Your task to perform on an android device: Open calendar and show me the first week of next month Image 0: 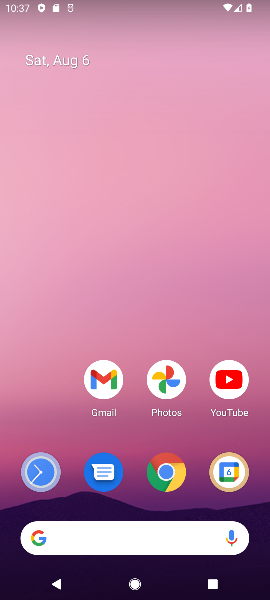
Step 0: drag from (165, 304) to (139, 133)
Your task to perform on an android device: Open calendar and show me the first week of next month Image 1: 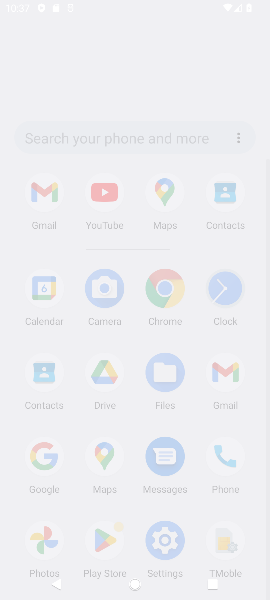
Step 1: drag from (149, 466) to (129, 220)
Your task to perform on an android device: Open calendar and show me the first week of next month Image 2: 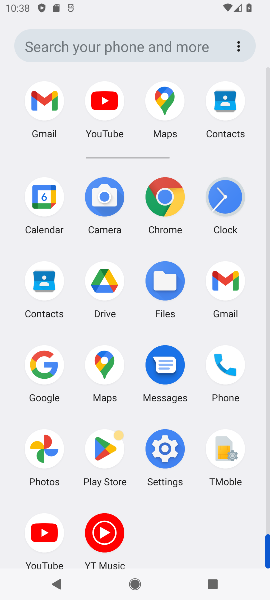
Step 2: click (43, 195)
Your task to perform on an android device: Open calendar and show me the first week of next month Image 3: 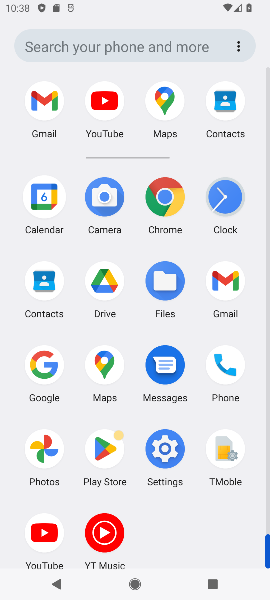
Step 3: click (43, 195)
Your task to perform on an android device: Open calendar and show me the first week of next month Image 4: 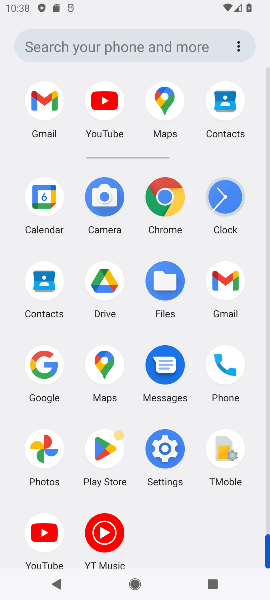
Step 4: click (42, 194)
Your task to perform on an android device: Open calendar and show me the first week of next month Image 5: 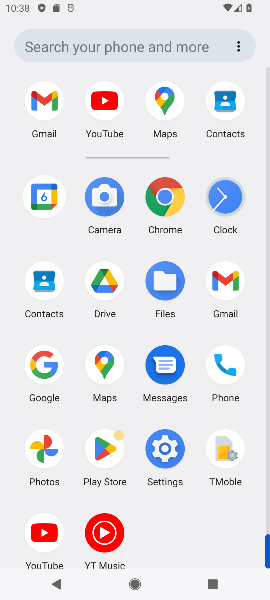
Step 5: click (42, 194)
Your task to perform on an android device: Open calendar and show me the first week of next month Image 6: 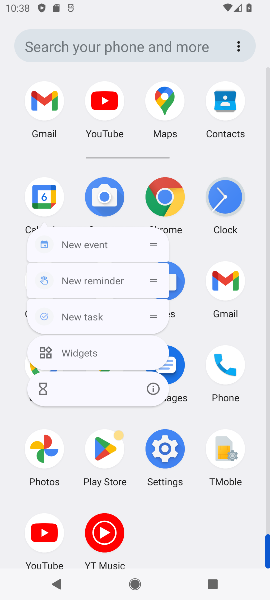
Step 6: click (42, 194)
Your task to perform on an android device: Open calendar and show me the first week of next month Image 7: 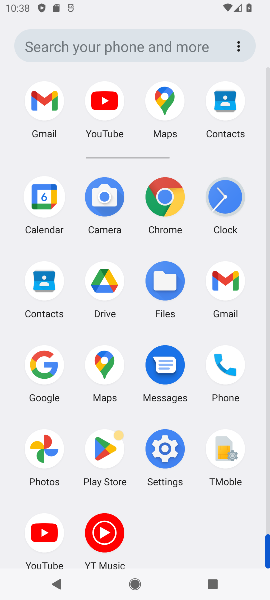
Step 7: click (41, 196)
Your task to perform on an android device: Open calendar and show me the first week of next month Image 8: 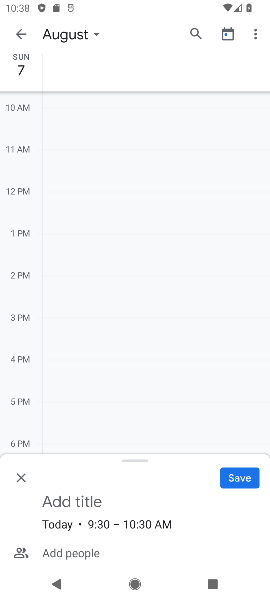
Step 8: click (41, 202)
Your task to perform on an android device: Open calendar and show me the first week of next month Image 9: 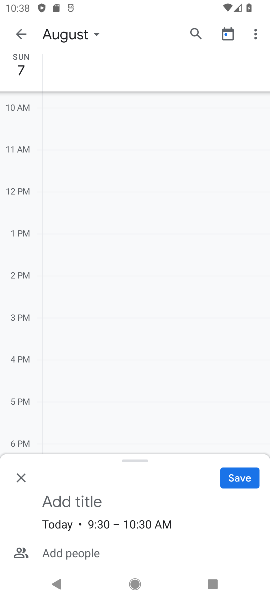
Step 9: click (88, 34)
Your task to perform on an android device: Open calendar and show me the first week of next month Image 10: 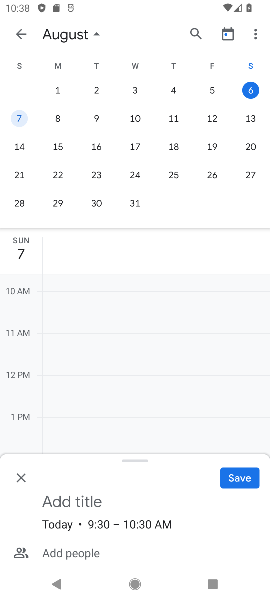
Step 10: drag from (246, 122) to (197, 138)
Your task to perform on an android device: Open calendar and show me the first week of next month Image 11: 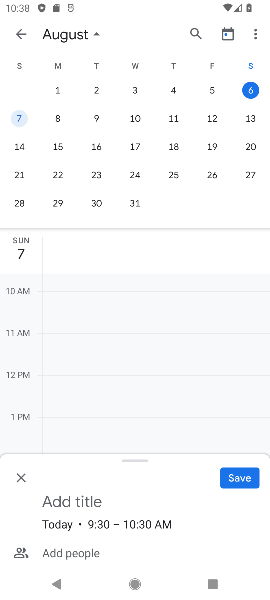
Step 11: drag from (239, 101) to (7, 121)
Your task to perform on an android device: Open calendar and show me the first week of next month Image 12: 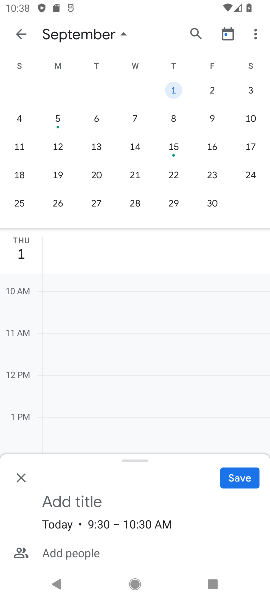
Step 12: click (170, 89)
Your task to perform on an android device: Open calendar and show me the first week of next month Image 13: 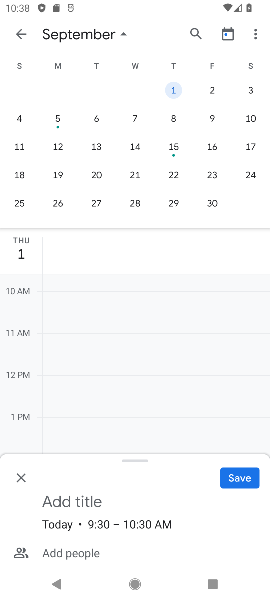
Step 13: task complete